Your task to perform on an android device: Open accessibility settings Image 0: 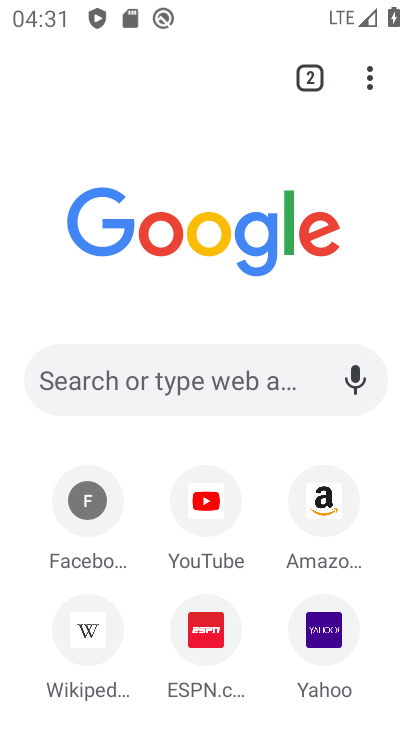
Step 0: press home button
Your task to perform on an android device: Open accessibility settings Image 1: 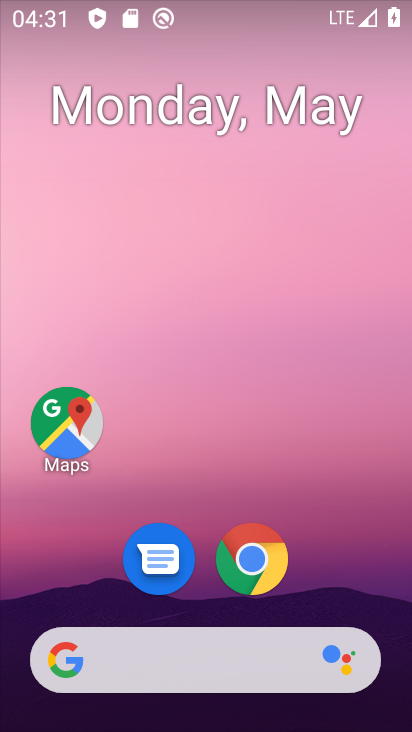
Step 1: drag from (324, 553) to (246, 5)
Your task to perform on an android device: Open accessibility settings Image 2: 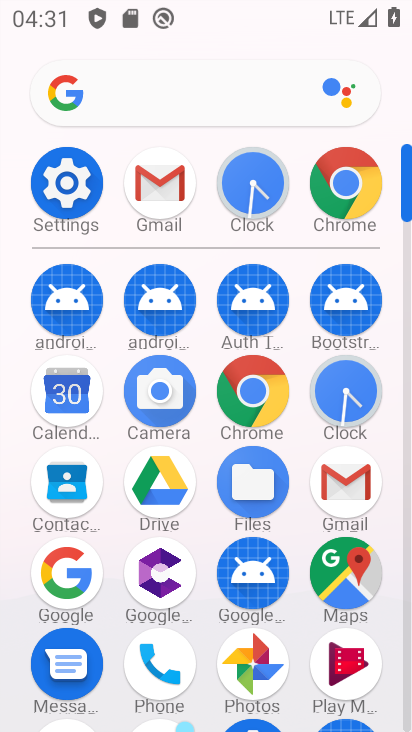
Step 2: click (46, 195)
Your task to perform on an android device: Open accessibility settings Image 3: 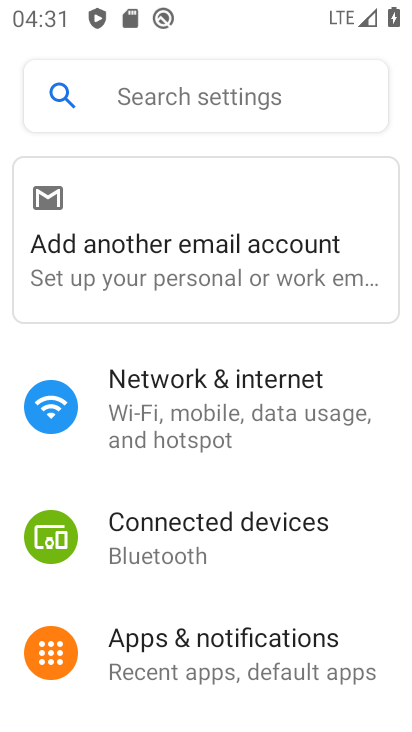
Step 3: drag from (258, 699) to (352, 115)
Your task to perform on an android device: Open accessibility settings Image 4: 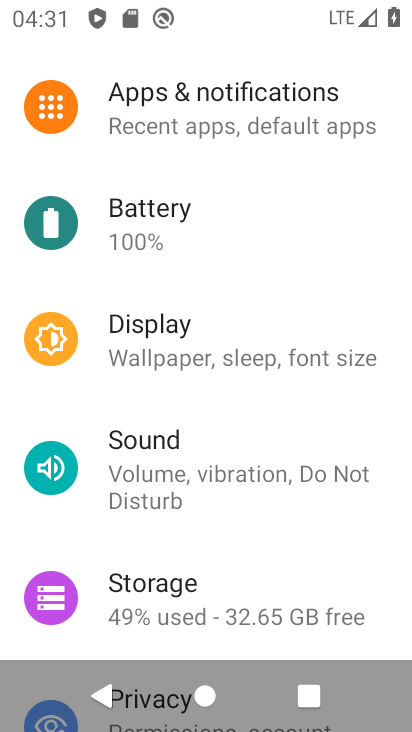
Step 4: drag from (327, 579) to (398, 40)
Your task to perform on an android device: Open accessibility settings Image 5: 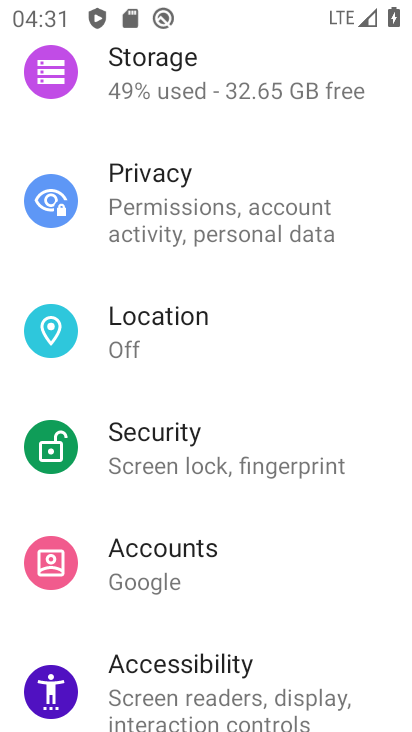
Step 5: click (194, 672)
Your task to perform on an android device: Open accessibility settings Image 6: 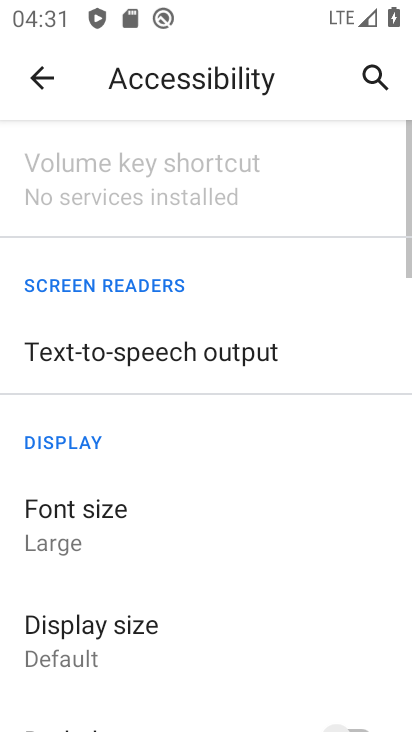
Step 6: task complete